Your task to perform on an android device: Go to wifi settings Image 0: 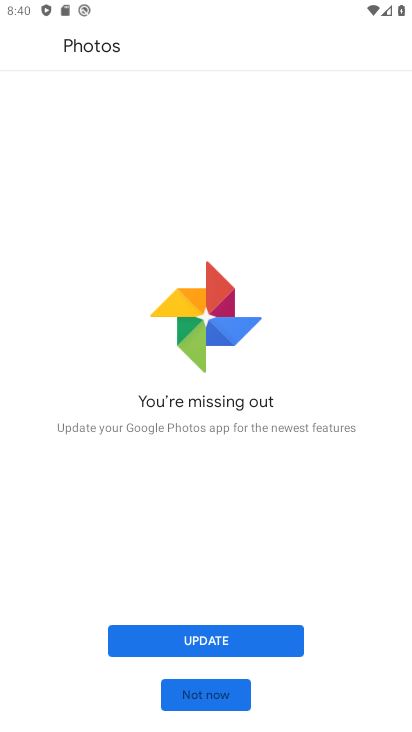
Step 0: press home button
Your task to perform on an android device: Go to wifi settings Image 1: 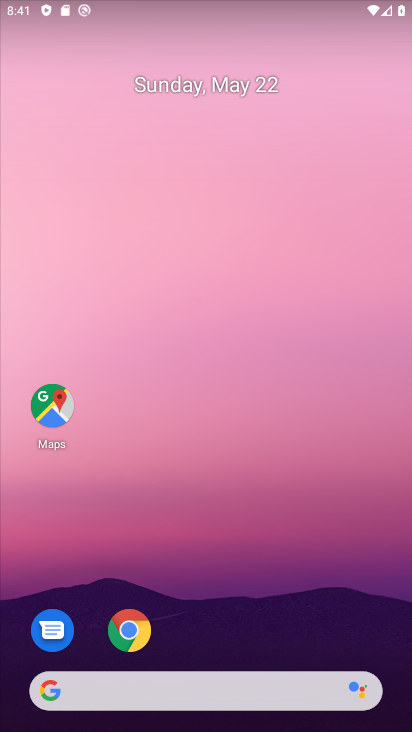
Step 1: drag from (299, 610) to (317, 233)
Your task to perform on an android device: Go to wifi settings Image 2: 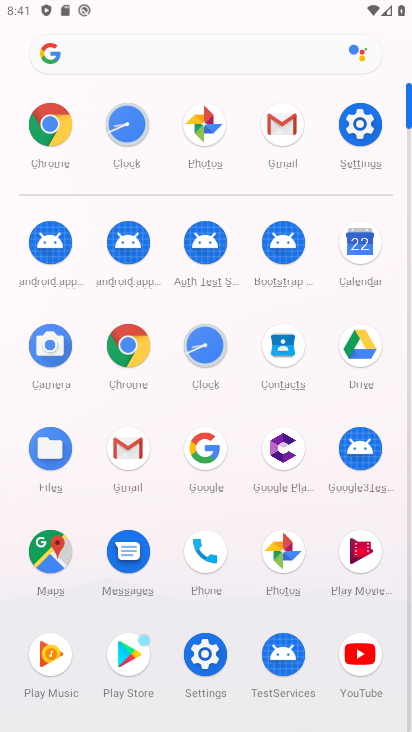
Step 2: click (369, 126)
Your task to perform on an android device: Go to wifi settings Image 3: 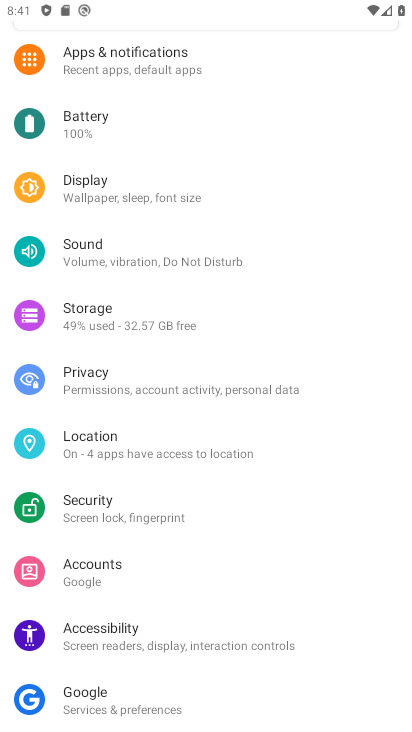
Step 3: drag from (227, 148) to (234, 551)
Your task to perform on an android device: Go to wifi settings Image 4: 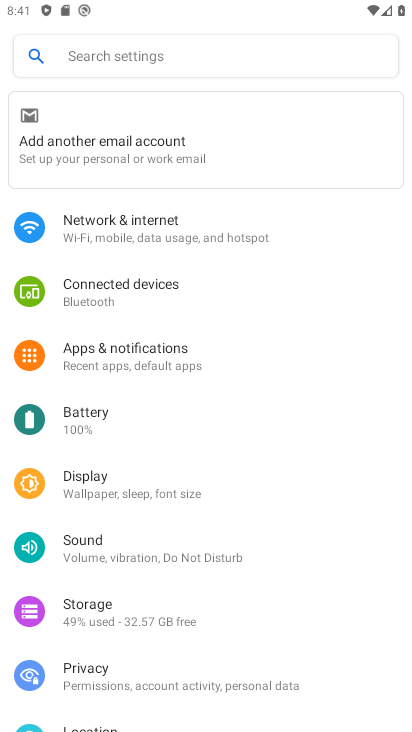
Step 4: click (230, 241)
Your task to perform on an android device: Go to wifi settings Image 5: 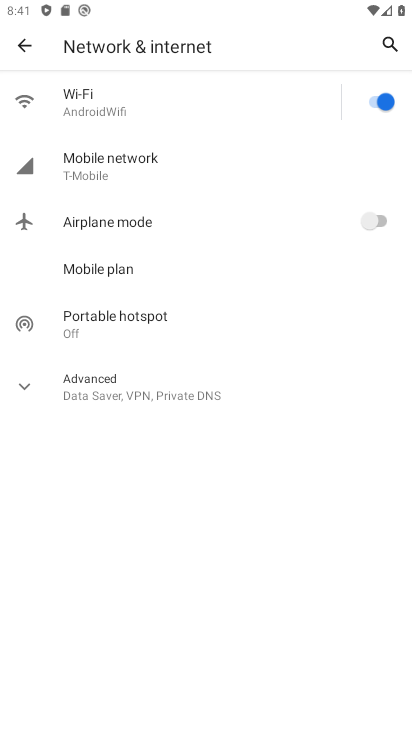
Step 5: click (125, 96)
Your task to perform on an android device: Go to wifi settings Image 6: 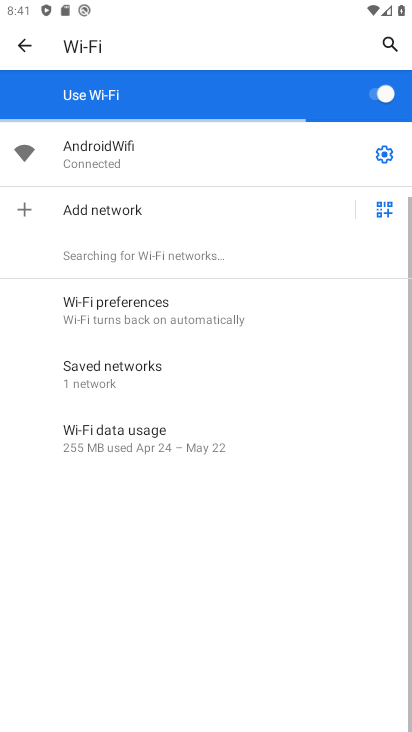
Step 6: task complete